Your task to perform on an android device: Go to network settings Image 0: 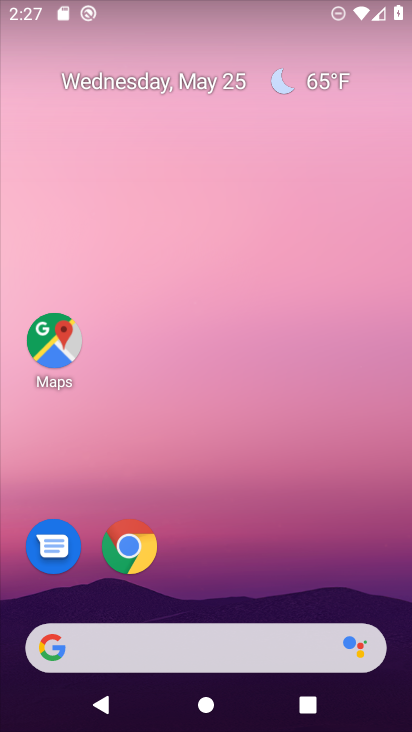
Step 0: drag from (204, 587) to (220, 89)
Your task to perform on an android device: Go to network settings Image 1: 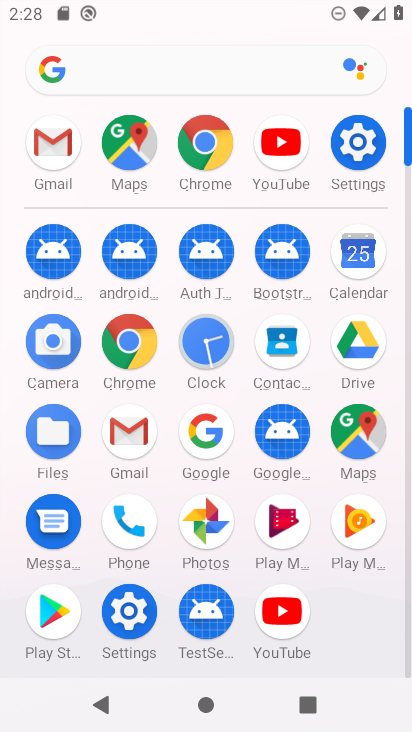
Step 1: click (363, 153)
Your task to perform on an android device: Go to network settings Image 2: 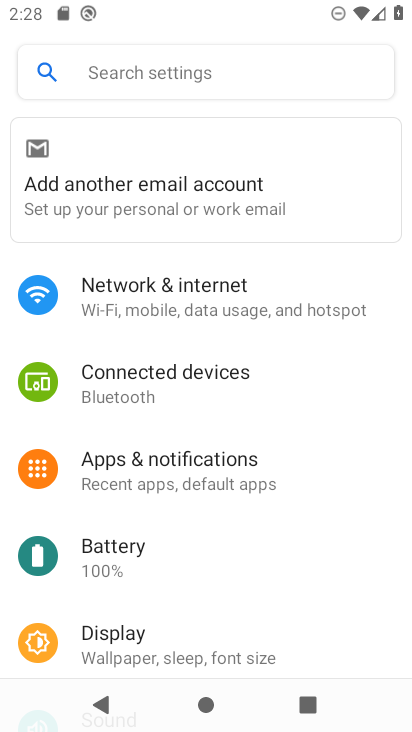
Step 2: click (232, 309)
Your task to perform on an android device: Go to network settings Image 3: 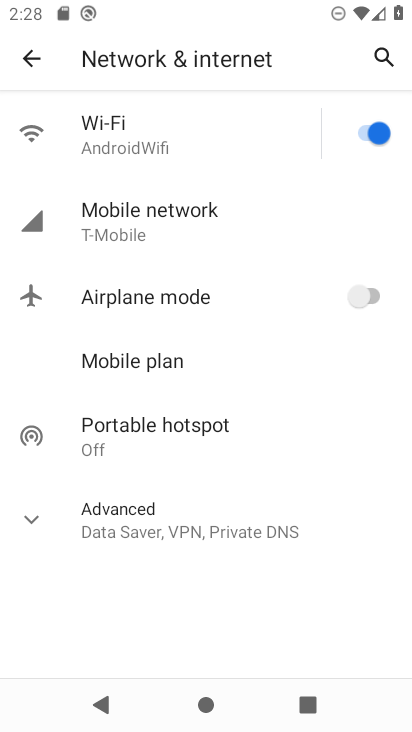
Step 3: task complete